Your task to perform on an android device: Look up the best rated 3d printer on Ali Express Image 0: 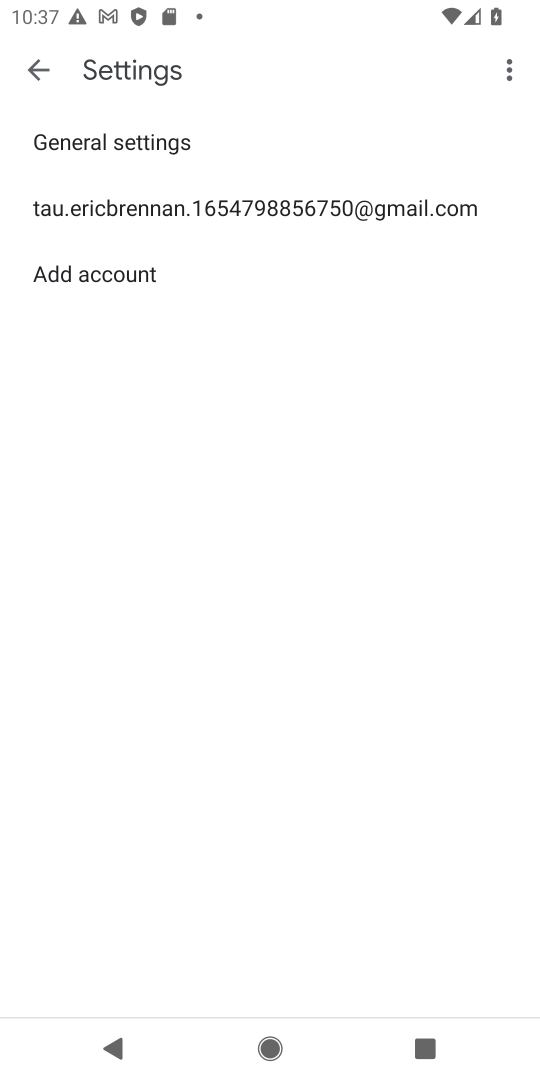
Step 0: press home button
Your task to perform on an android device: Look up the best rated 3d printer on Ali Express Image 1: 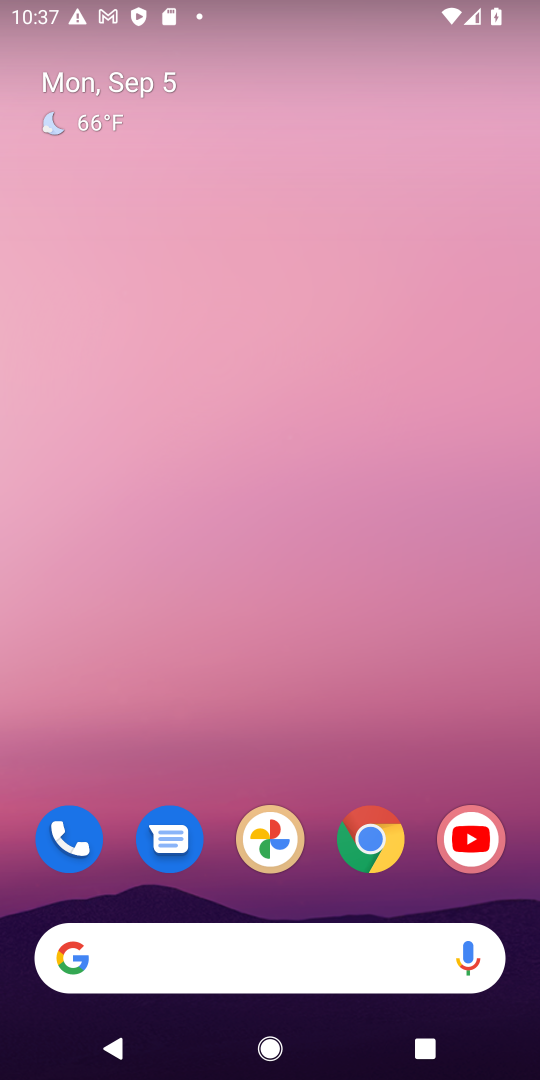
Step 1: drag from (267, 927) to (281, 277)
Your task to perform on an android device: Look up the best rated 3d printer on Ali Express Image 2: 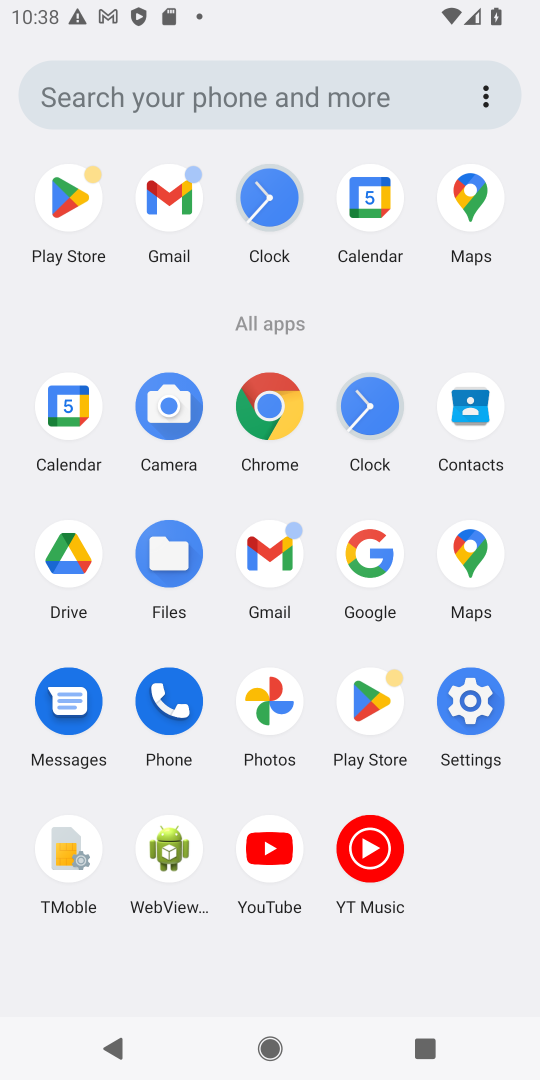
Step 2: click (376, 557)
Your task to perform on an android device: Look up the best rated 3d printer on Ali Express Image 3: 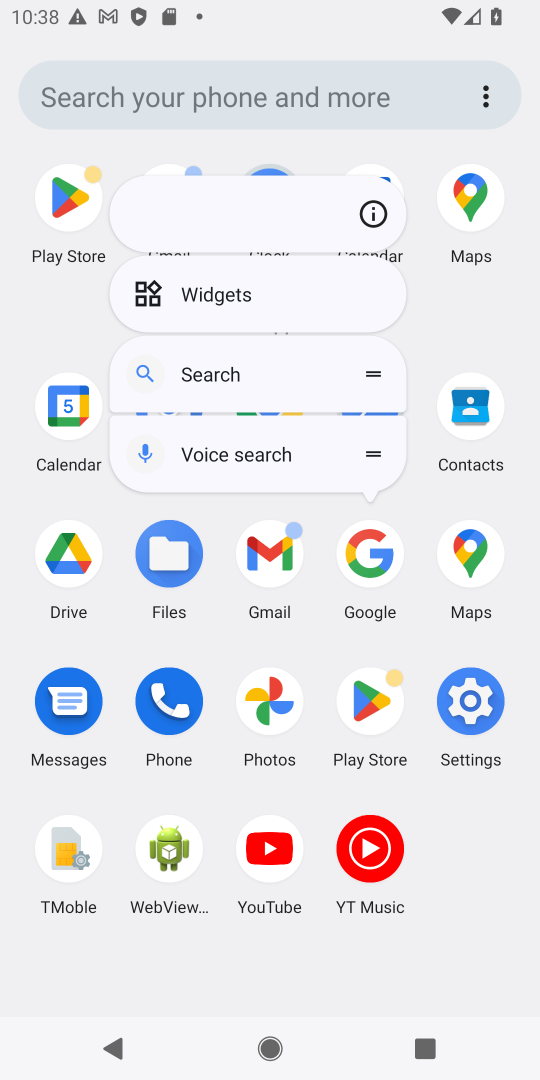
Step 3: click (381, 557)
Your task to perform on an android device: Look up the best rated 3d printer on Ali Express Image 4: 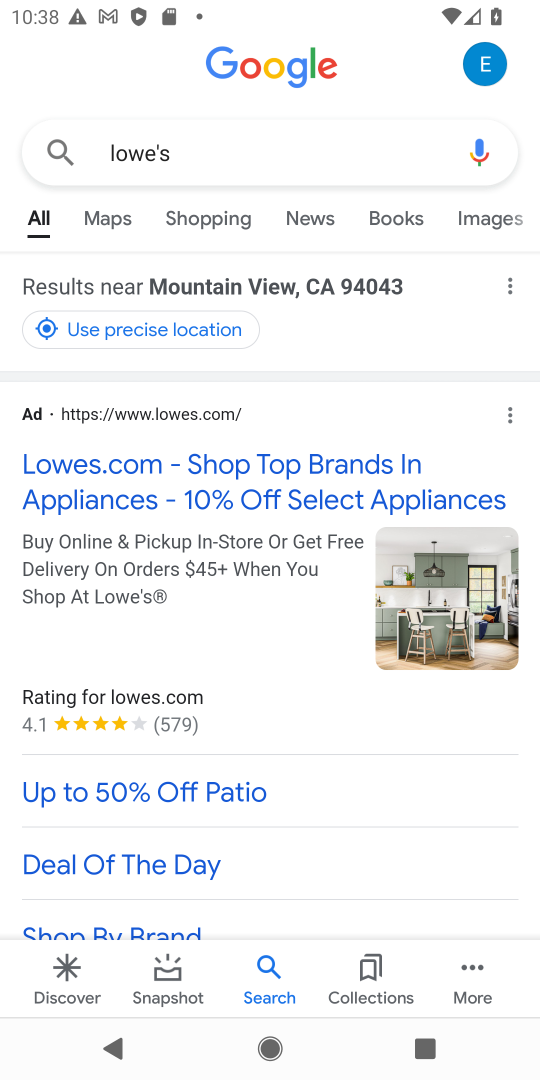
Step 4: click (187, 161)
Your task to perform on an android device: Look up the best rated 3d printer on Ali Express Image 5: 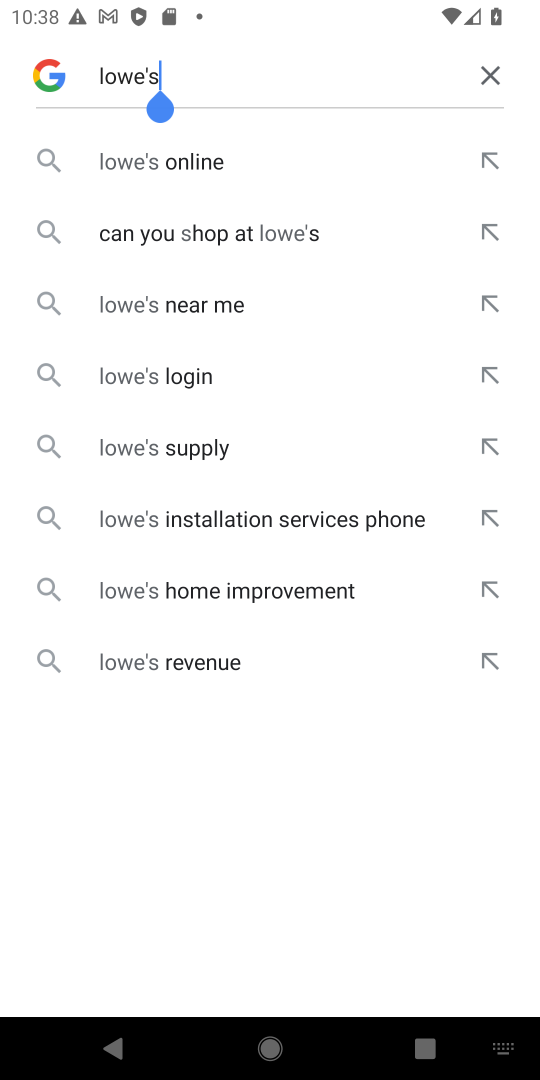
Step 5: click (490, 78)
Your task to perform on an android device: Look up the best rated 3d printer on Ali Express Image 6: 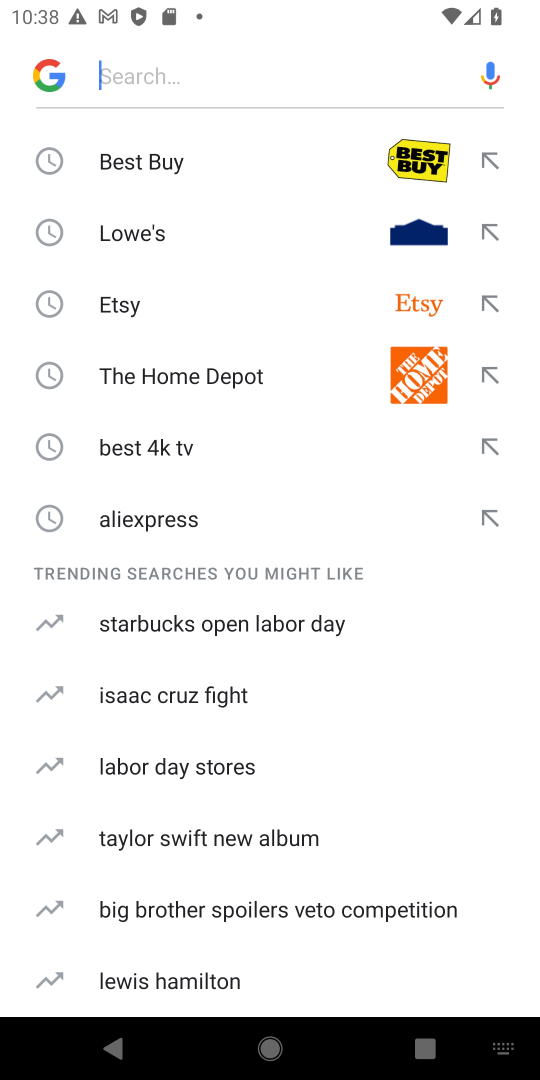
Step 6: click (207, 65)
Your task to perform on an android device: Look up the best rated 3d printer on Ali Express Image 7: 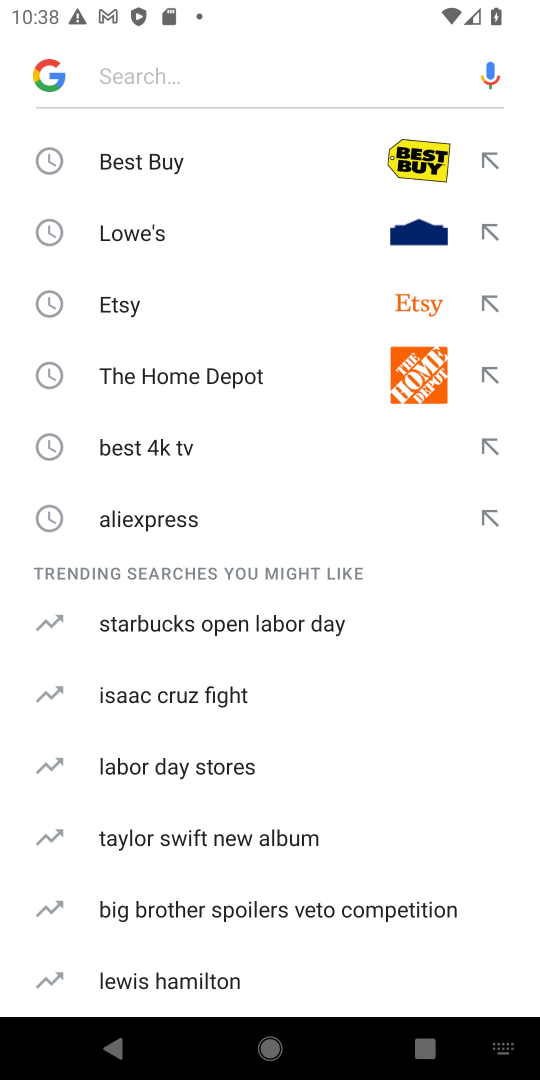
Step 7: click (171, 518)
Your task to perform on an android device: Look up the best rated 3d printer on Ali Express Image 8: 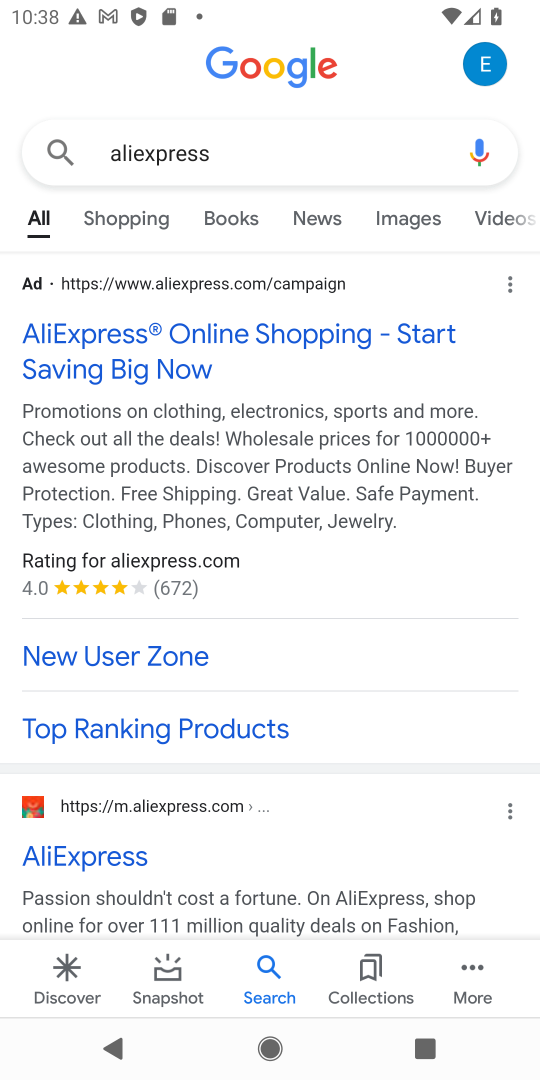
Step 8: click (186, 339)
Your task to perform on an android device: Look up the best rated 3d printer on Ali Express Image 9: 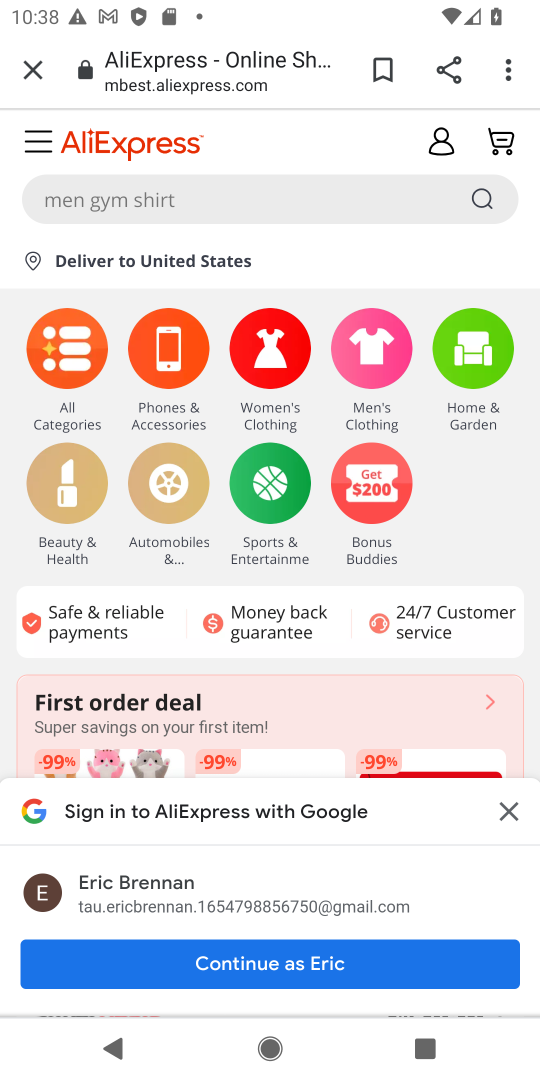
Step 9: click (109, 195)
Your task to perform on an android device: Look up the best rated 3d printer on Ali Express Image 10: 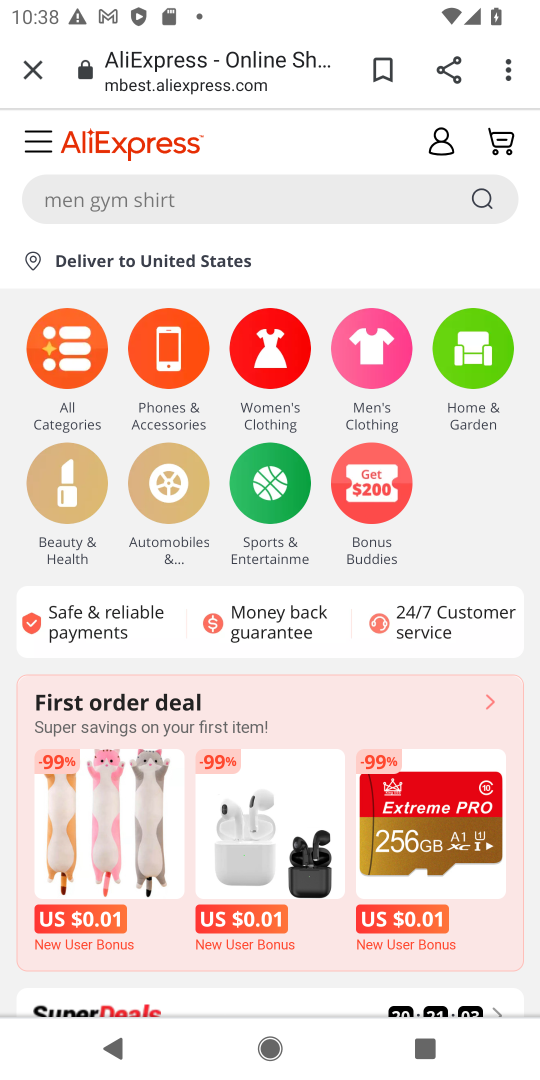
Step 10: click (475, 202)
Your task to perform on an android device: Look up the best rated 3d printer on Ali Express Image 11: 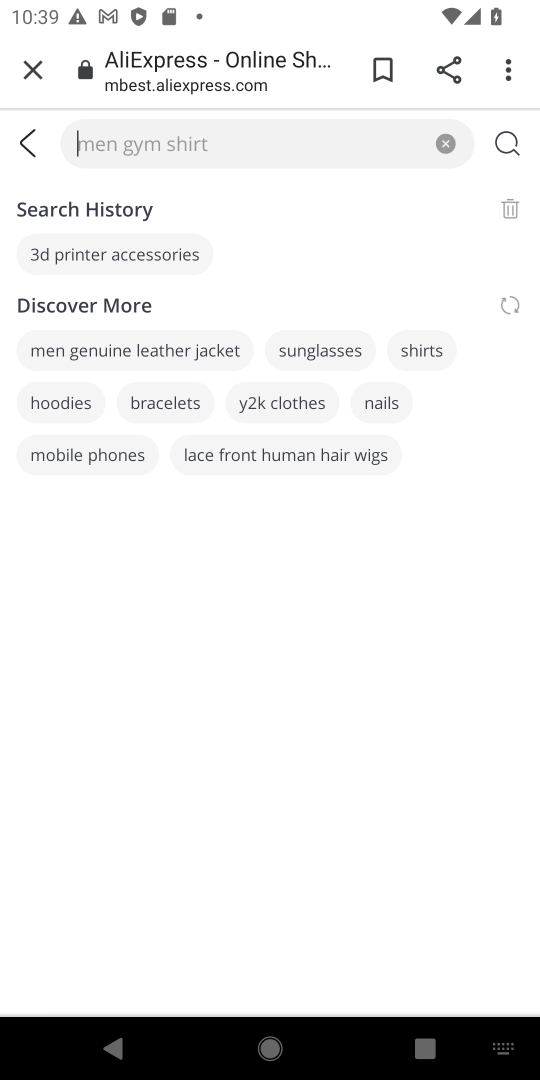
Step 11: type "best rated 3d printer"
Your task to perform on an android device: Look up the best rated 3d printer on Ali Express Image 12: 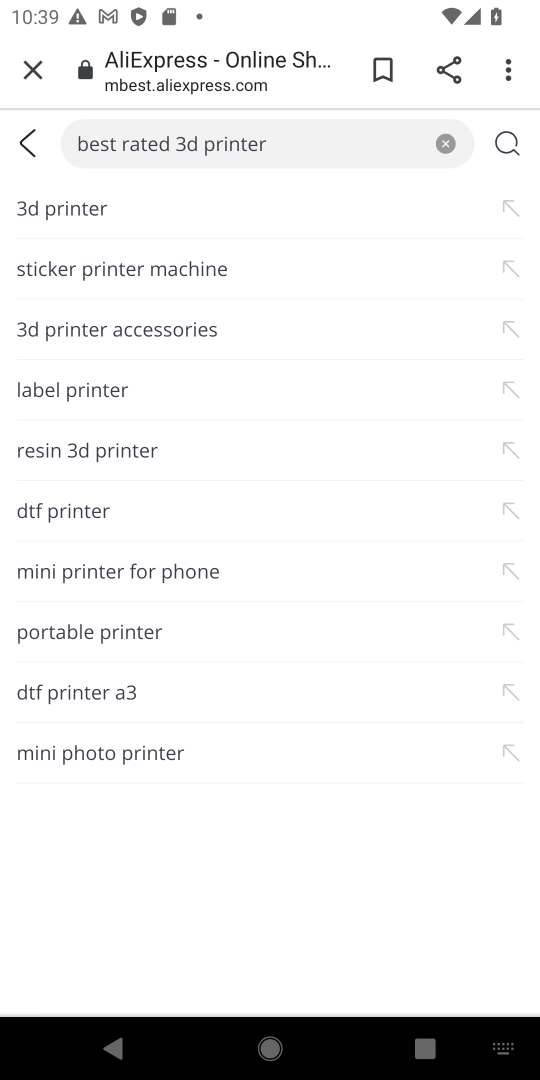
Step 12: click (84, 212)
Your task to perform on an android device: Look up the best rated 3d printer on Ali Express Image 13: 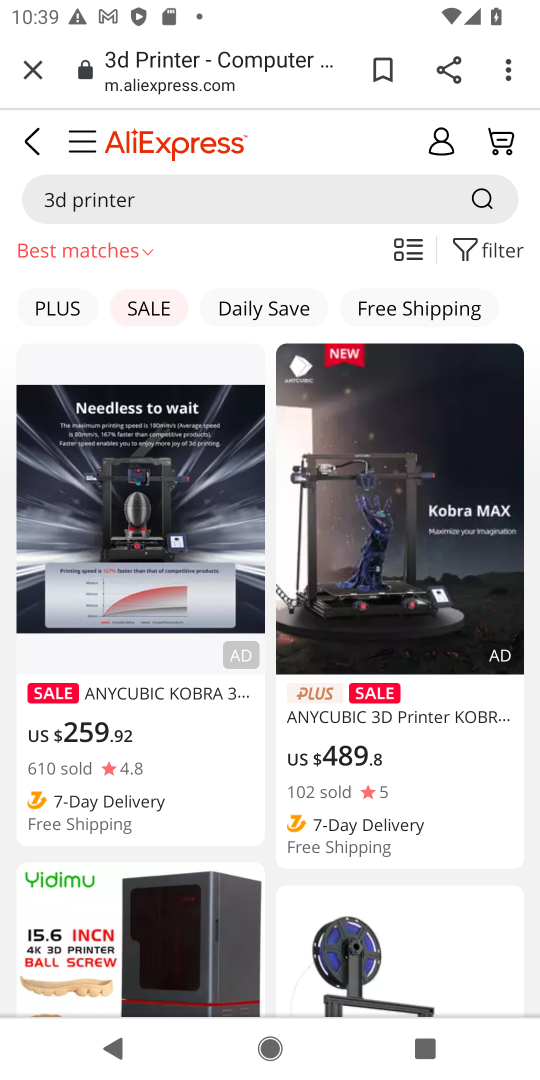
Step 13: click (313, 389)
Your task to perform on an android device: Look up the best rated 3d printer on Ali Express Image 14: 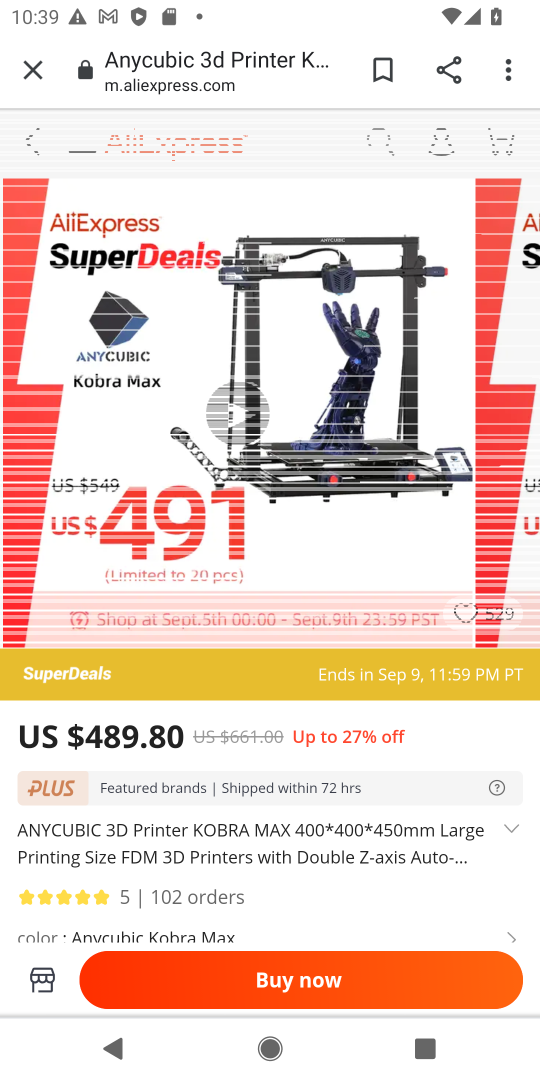
Step 14: task complete